Your task to perform on an android device: check android version Image 0: 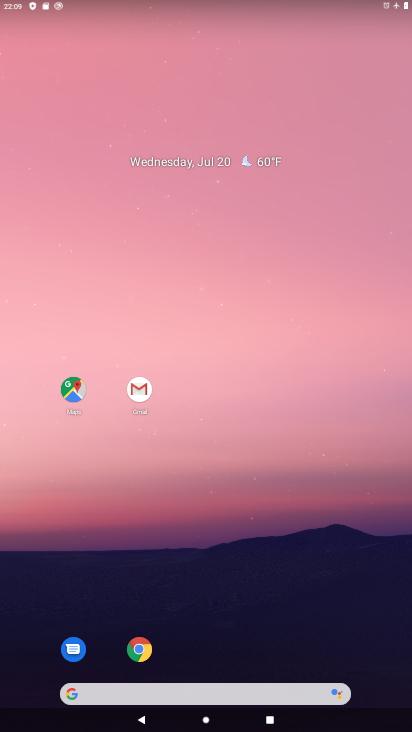
Step 0: drag from (376, 714) to (384, 121)
Your task to perform on an android device: check android version Image 1: 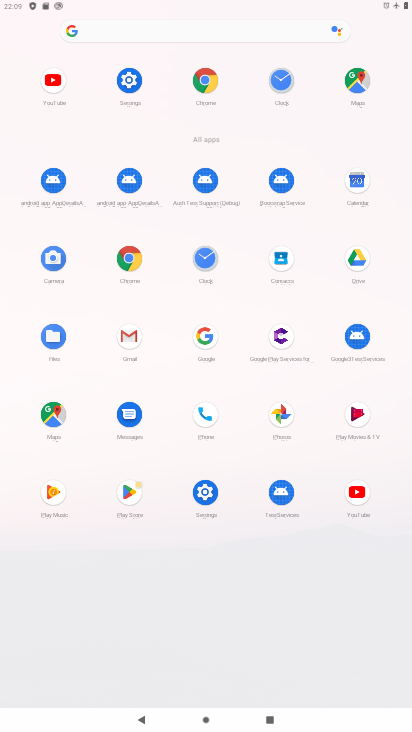
Step 1: click (204, 497)
Your task to perform on an android device: check android version Image 2: 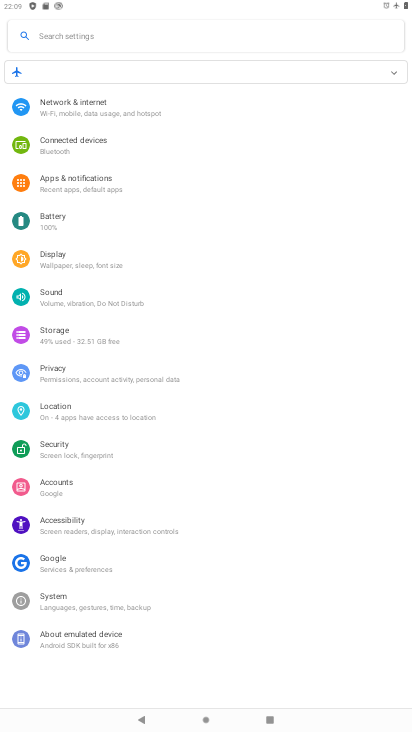
Step 2: click (82, 636)
Your task to perform on an android device: check android version Image 3: 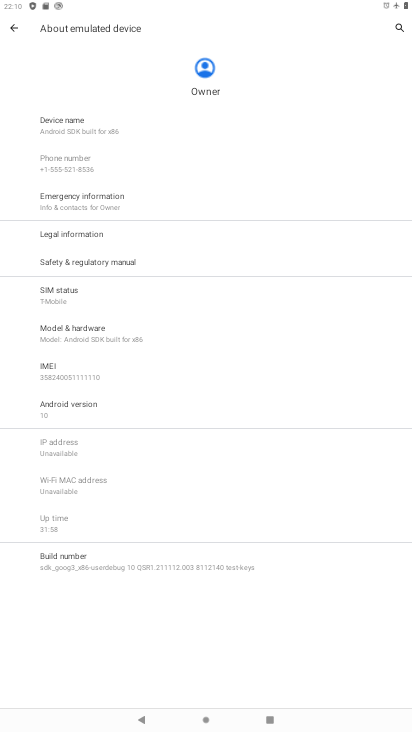
Step 3: click (68, 400)
Your task to perform on an android device: check android version Image 4: 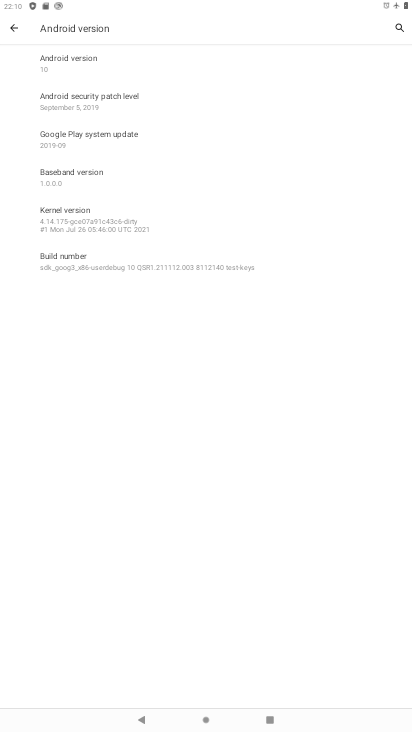
Step 4: click (52, 64)
Your task to perform on an android device: check android version Image 5: 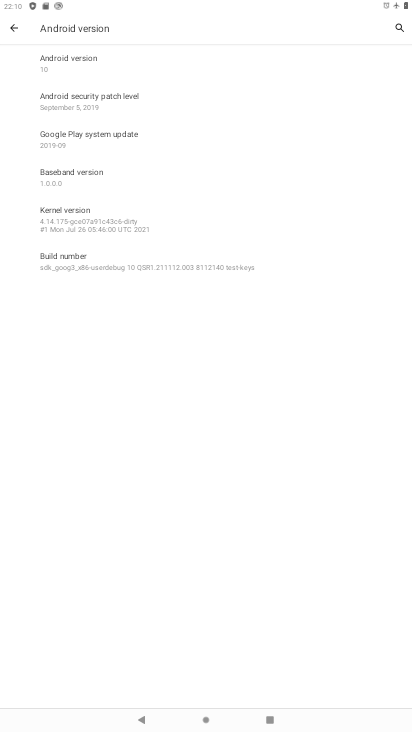
Step 5: task complete